Your task to perform on an android device: Open maps Image 0: 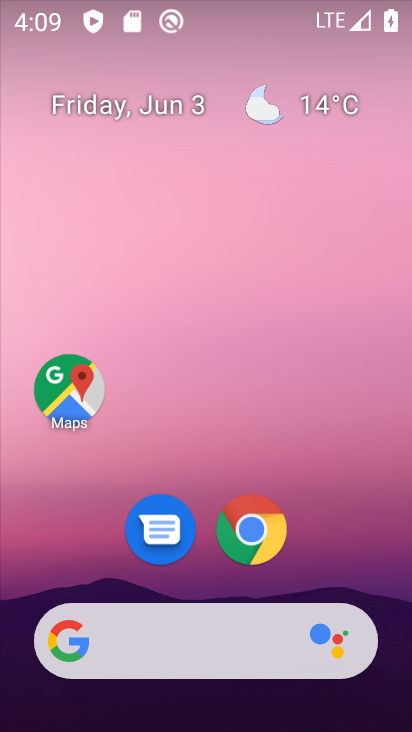
Step 0: click (69, 384)
Your task to perform on an android device: Open maps Image 1: 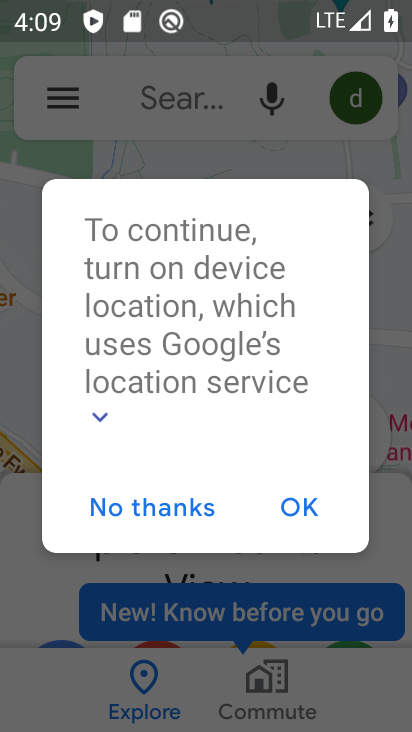
Step 1: press home button
Your task to perform on an android device: Open maps Image 2: 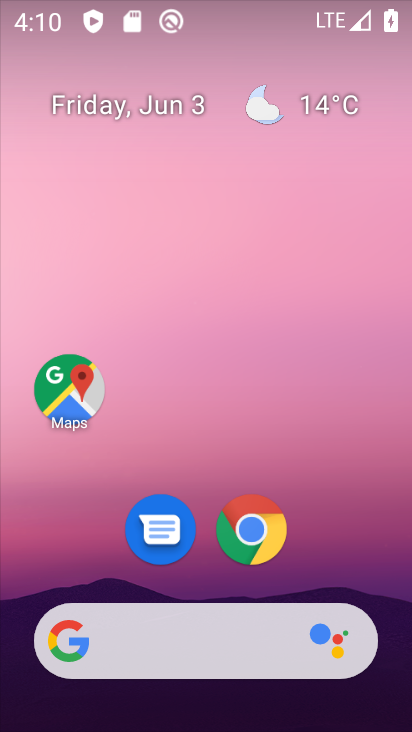
Step 2: click (70, 394)
Your task to perform on an android device: Open maps Image 3: 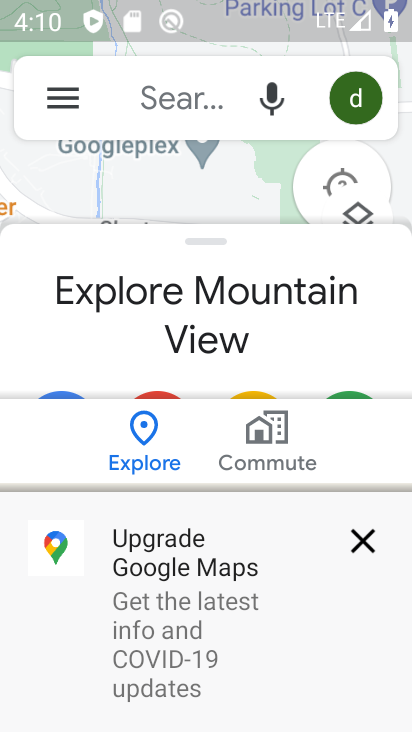
Step 3: click (363, 541)
Your task to perform on an android device: Open maps Image 4: 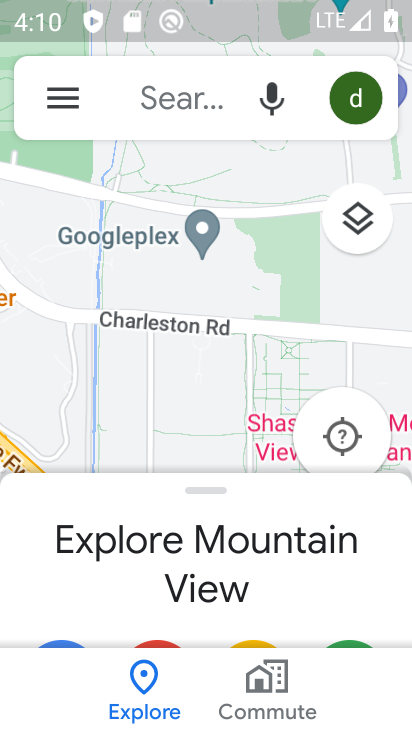
Step 4: task complete